Your task to perform on an android device: Go to CNN.com Image 0: 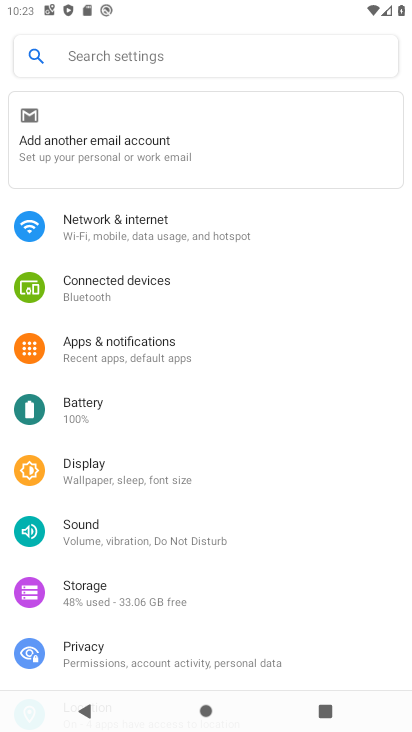
Step 0: press home button
Your task to perform on an android device: Go to CNN.com Image 1: 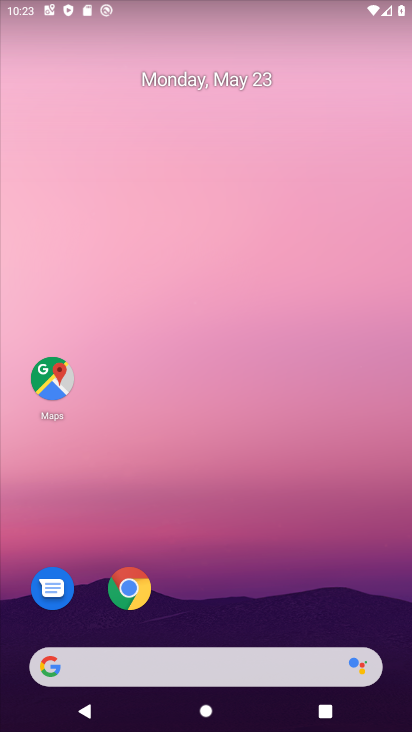
Step 1: click (130, 585)
Your task to perform on an android device: Go to CNN.com Image 2: 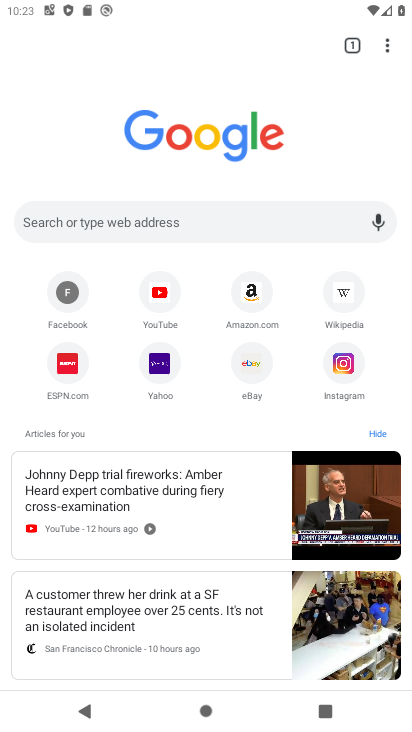
Step 2: click (239, 227)
Your task to perform on an android device: Go to CNN.com Image 3: 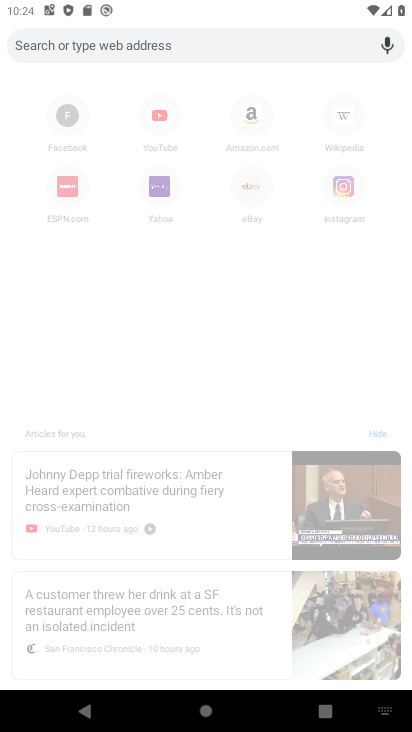
Step 3: type "cnn.com"
Your task to perform on an android device: Go to CNN.com Image 4: 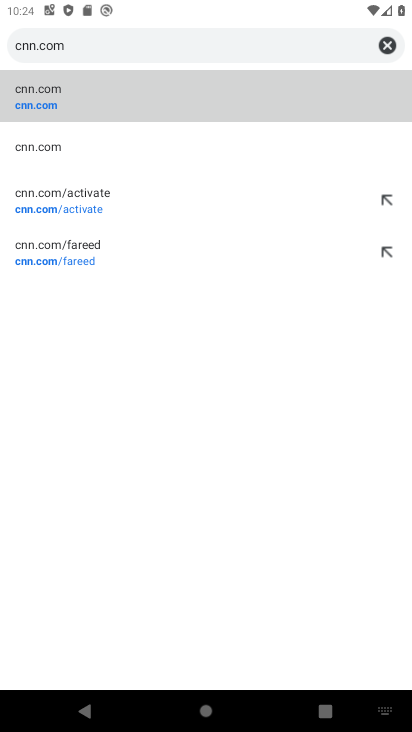
Step 4: click (44, 106)
Your task to perform on an android device: Go to CNN.com Image 5: 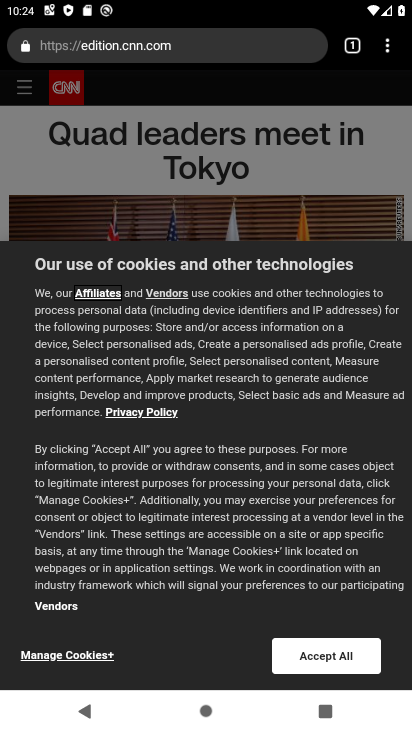
Step 5: task complete